Your task to perform on an android device: set the stopwatch Image 0: 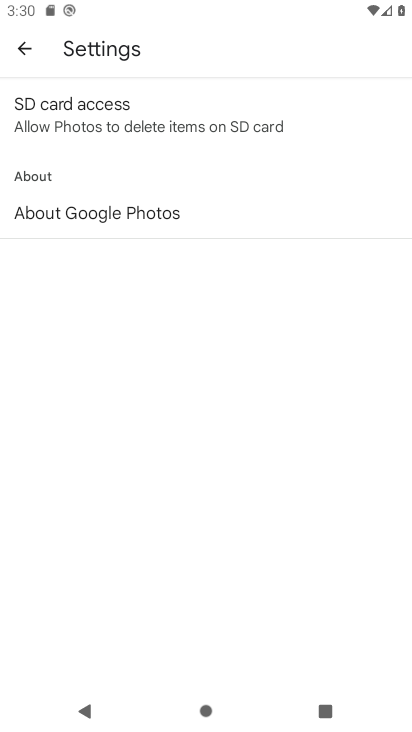
Step 0: press home button
Your task to perform on an android device: set the stopwatch Image 1: 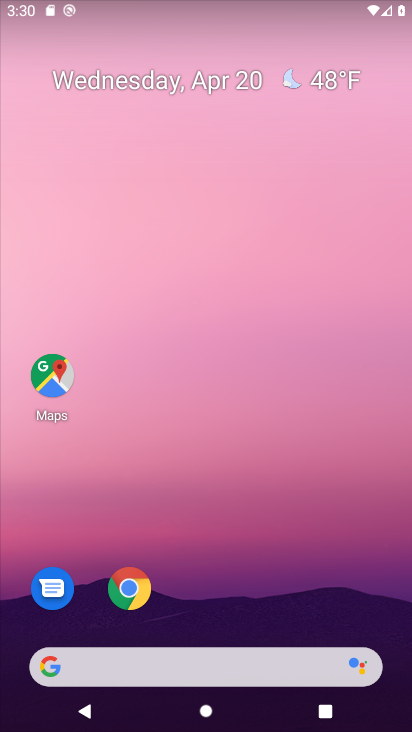
Step 1: drag from (334, 595) to (270, 110)
Your task to perform on an android device: set the stopwatch Image 2: 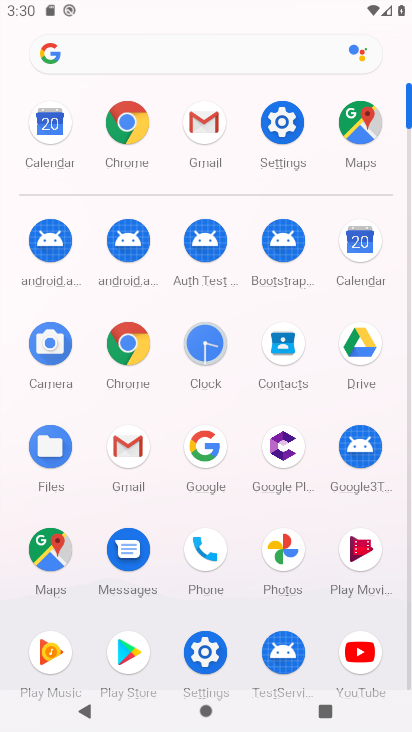
Step 2: click (202, 358)
Your task to perform on an android device: set the stopwatch Image 3: 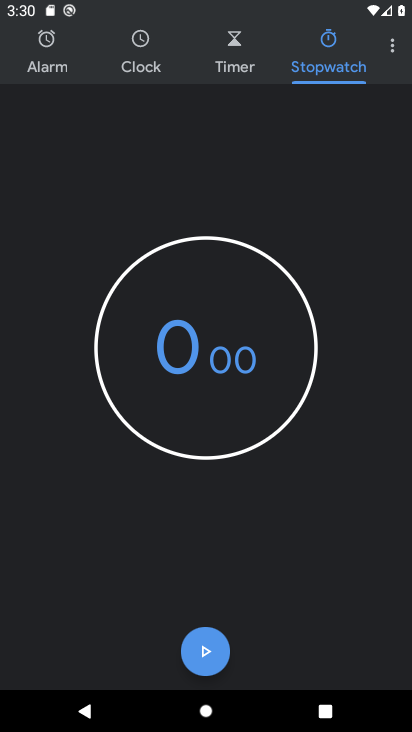
Step 3: task complete